Your task to perform on an android device: find photos in the google photos app Image 0: 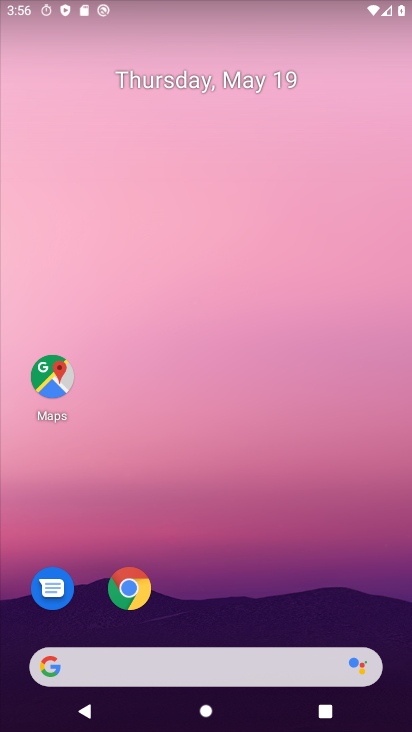
Step 0: drag from (212, 612) to (259, 21)
Your task to perform on an android device: find photos in the google photos app Image 1: 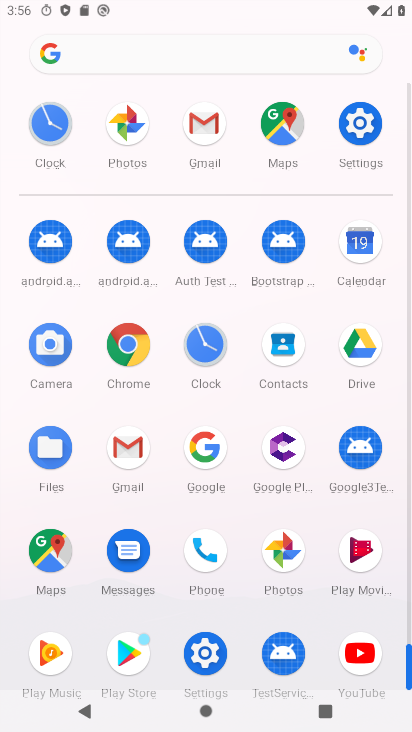
Step 1: click (289, 550)
Your task to perform on an android device: find photos in the google photos app Image 2: 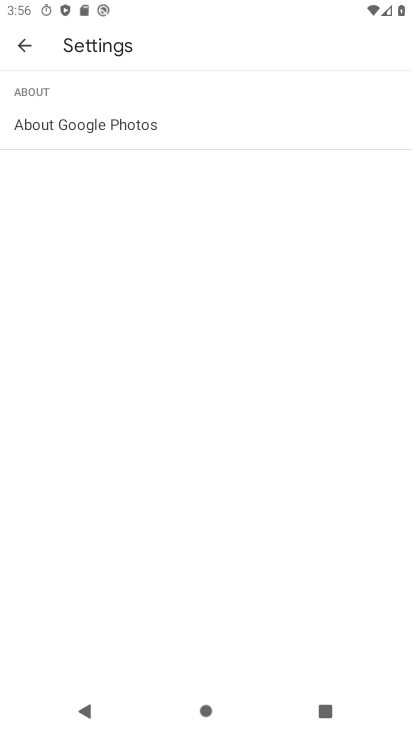
Step 2: click (25, 34)
Your task to perform on an android device: find photos in the google photos app Image 3: 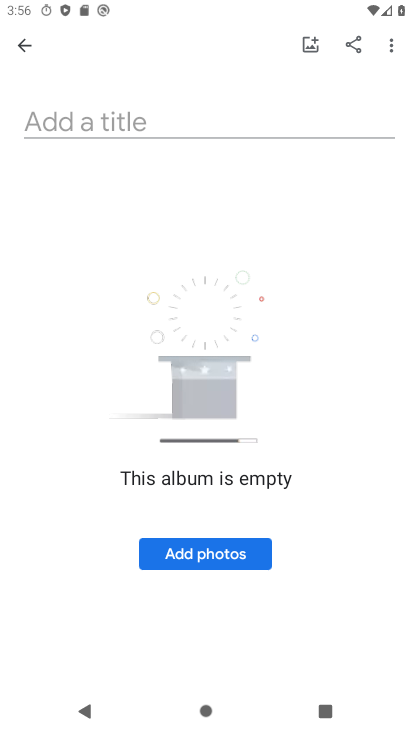
Step 3: click (29, 38)
Your task to perform on an android device: find photos in the google photos app Image 4: 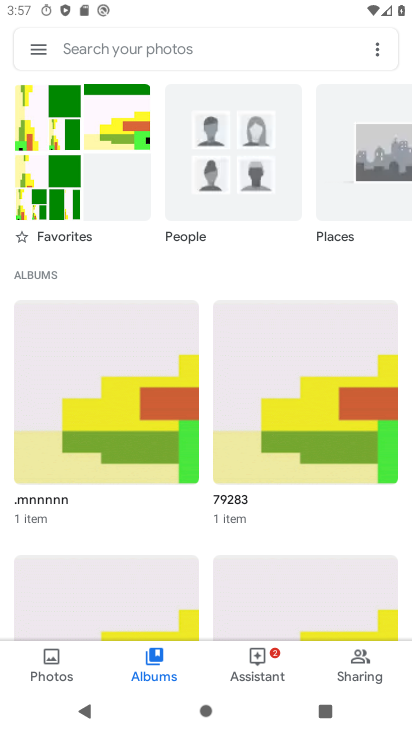
Step 4: click (61, 669)
Your task to perform on an android device: find photos in the google photos app Image 5: 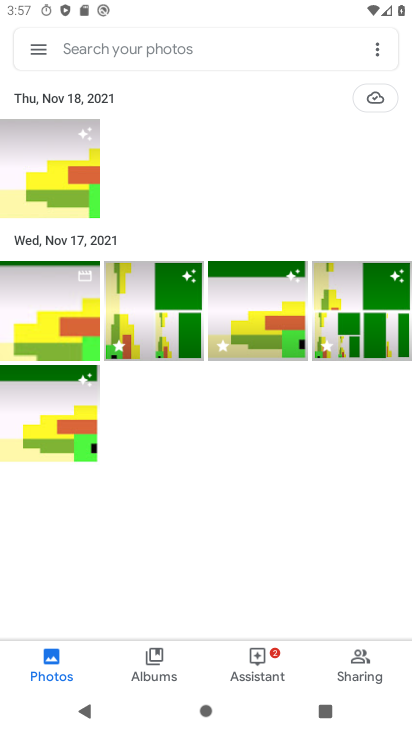
Step 5: task complete